Your task to perform on an android device: Open Maps and search for coffee Image 0: 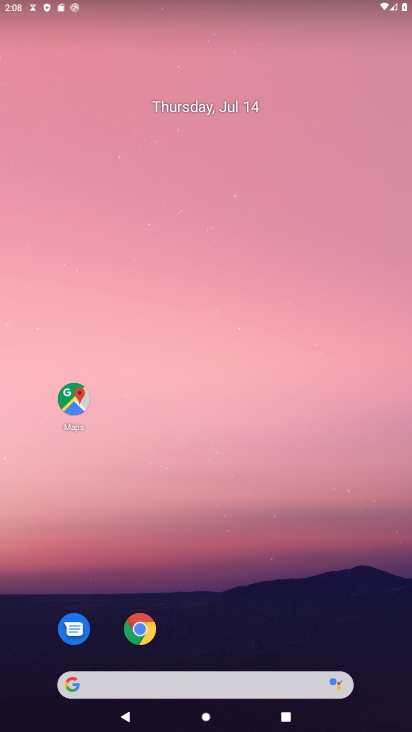
Step 0: click (78, 405)
Your task to perform on an android device: Open Maps and search for coffee Image 1: 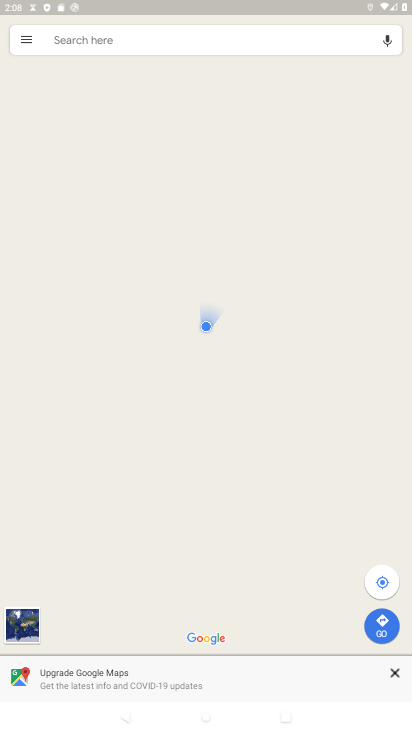
Step 1: click (224, 36)
Your task to perform on an android device: Open Maps and search for coffee Image 2: 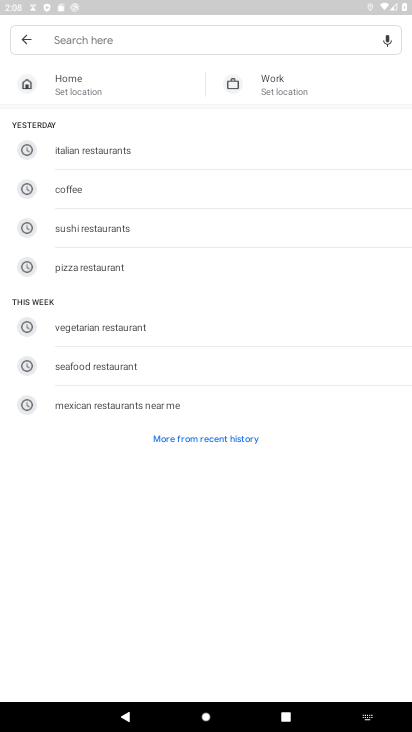
Step 2: type "coffee"
Your task to perform on an android device: Open Maps and search for coffee Image 3: 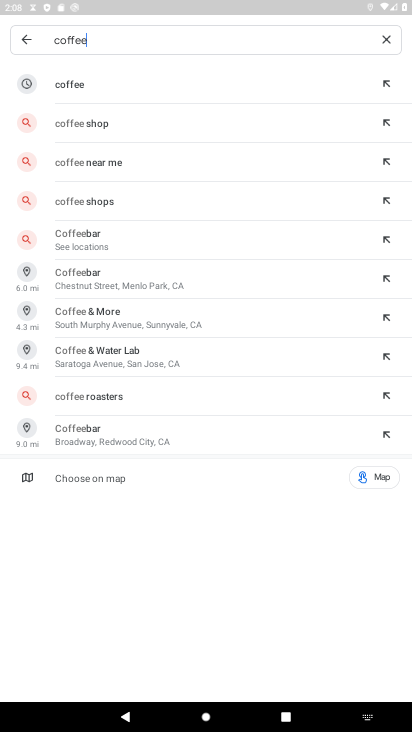
Step 3: click (111, 88)
Your task to perform on an android device: Open Maps and search for coffee Image 4: 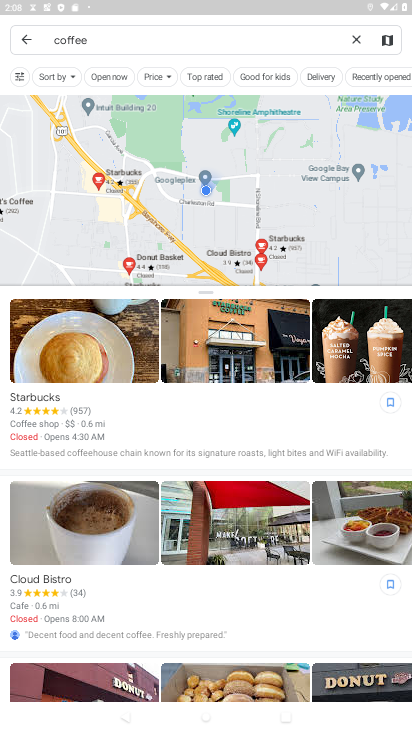
Step 4: task complete